Your task to perform on an android device: all mails in gmail Image 0: 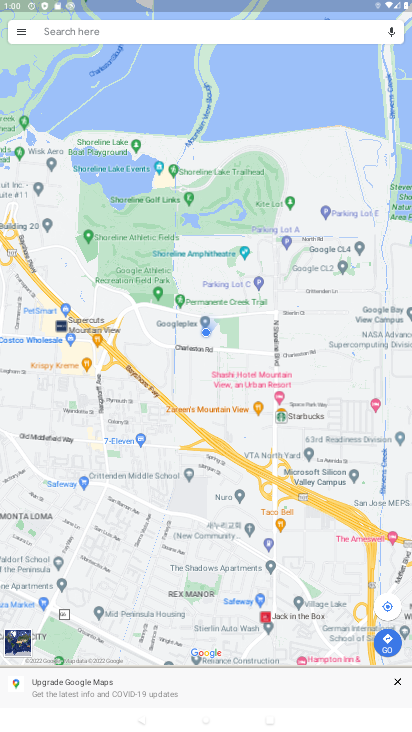
Step 0: press home button
Your task to perform on an android device: all mails in gmail Image 1: 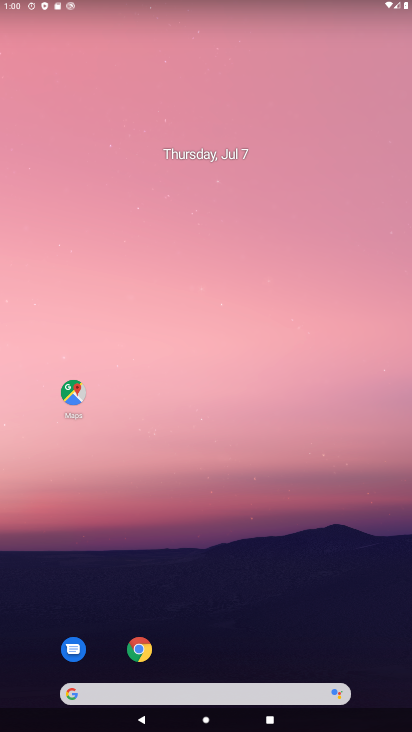
Step 1: drag from (207, 675) to (180, 125)
Your task to perform on an android device: all mails in gmail Image 2: 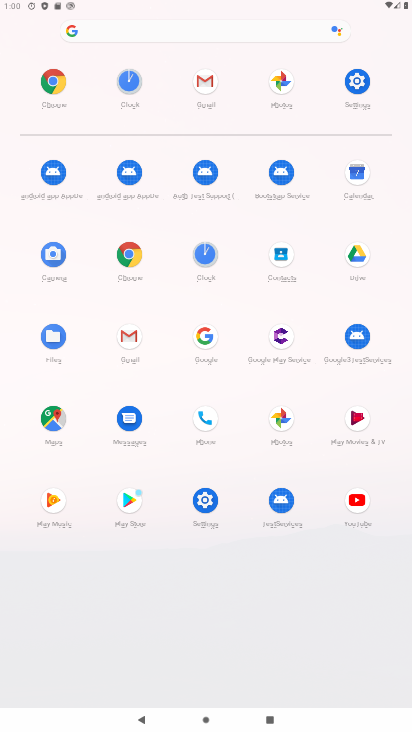
Step 2: click (196, 90)
Your task to perform on an android device: all mails in gmail Image 3: 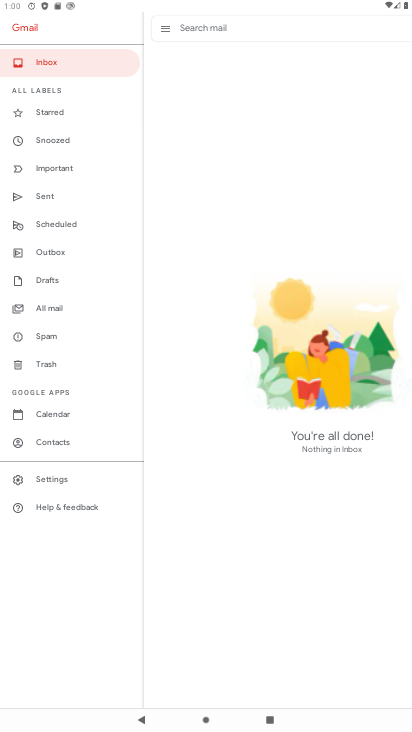
Step 3: click (40, 309)
Your task to perform on an android device: all mails in gmail Image 4: 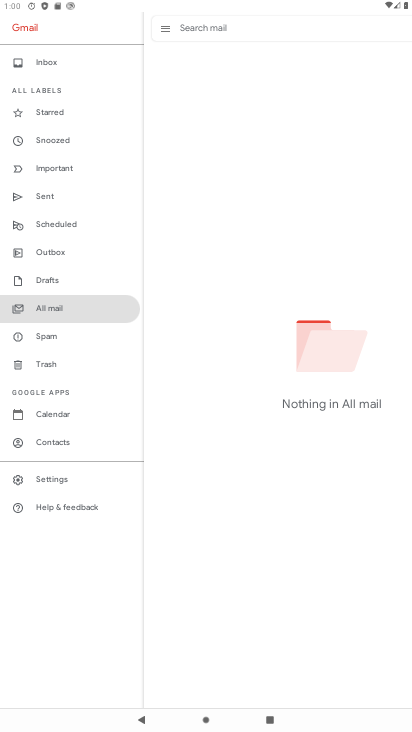
Step 4: task complete